Your task to perform on an android device: open app "Google Play services" (install if not already installed) Image 0: 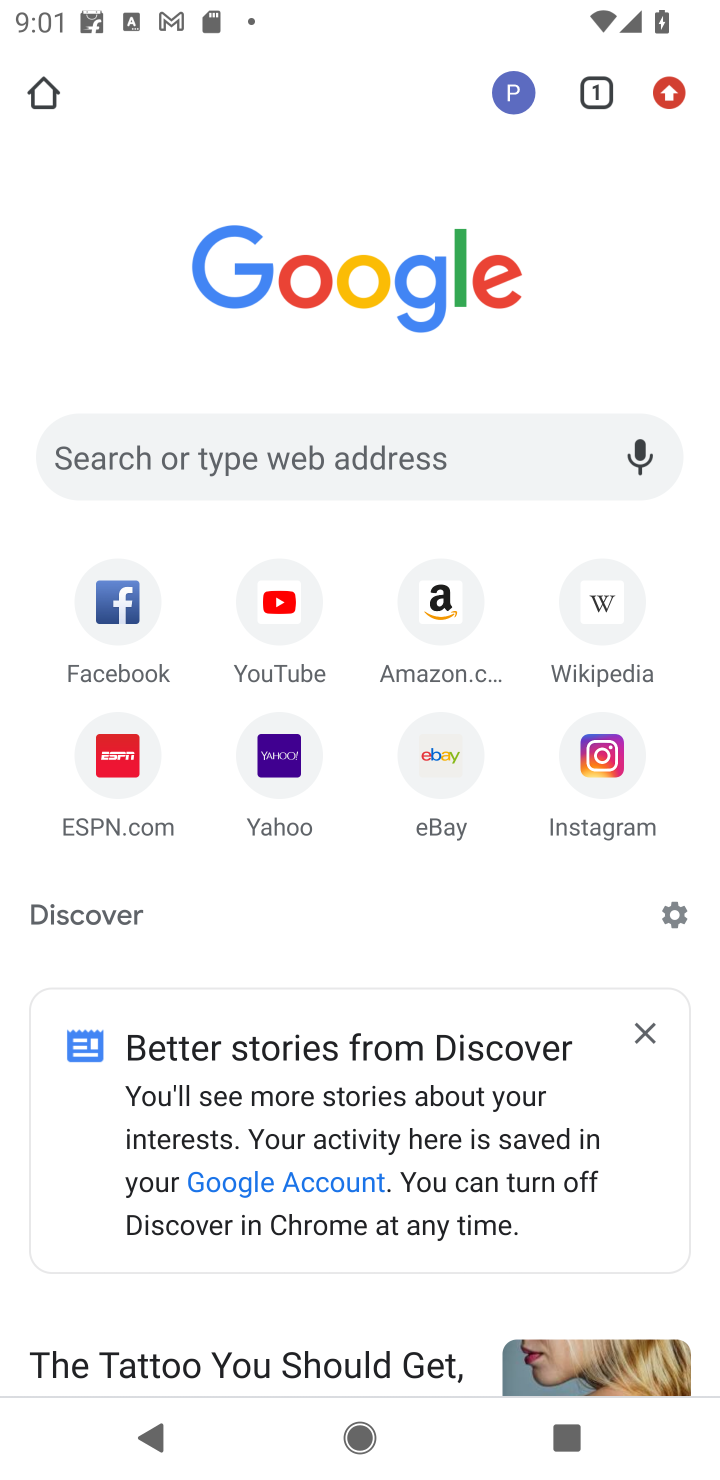
Step 0: press home button
Your task to perform on an android device: open app "Google Play services" (install if not already installed) Image 1: 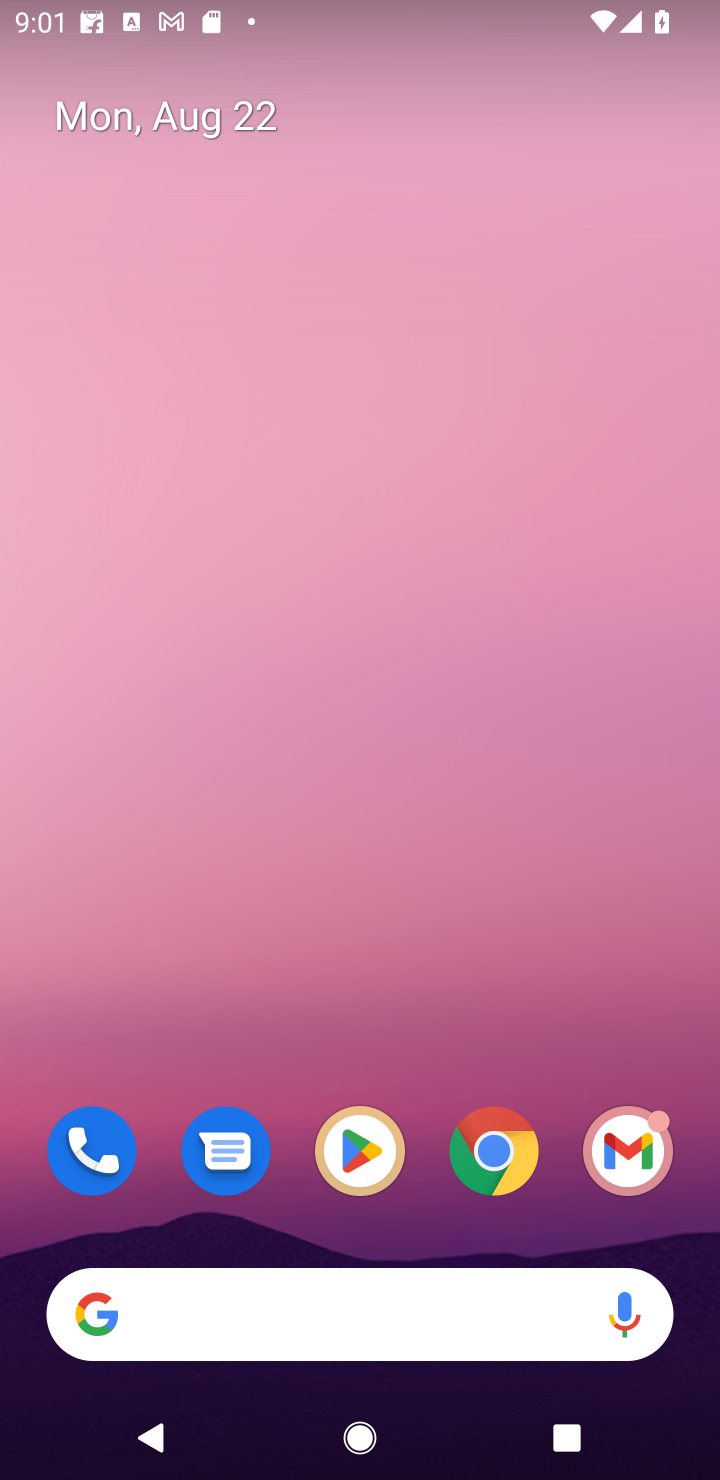
Step 1: click (354, 1153)
Your task to perform on an android device: open app "Google Play services" (install if not already installed) Image 2: 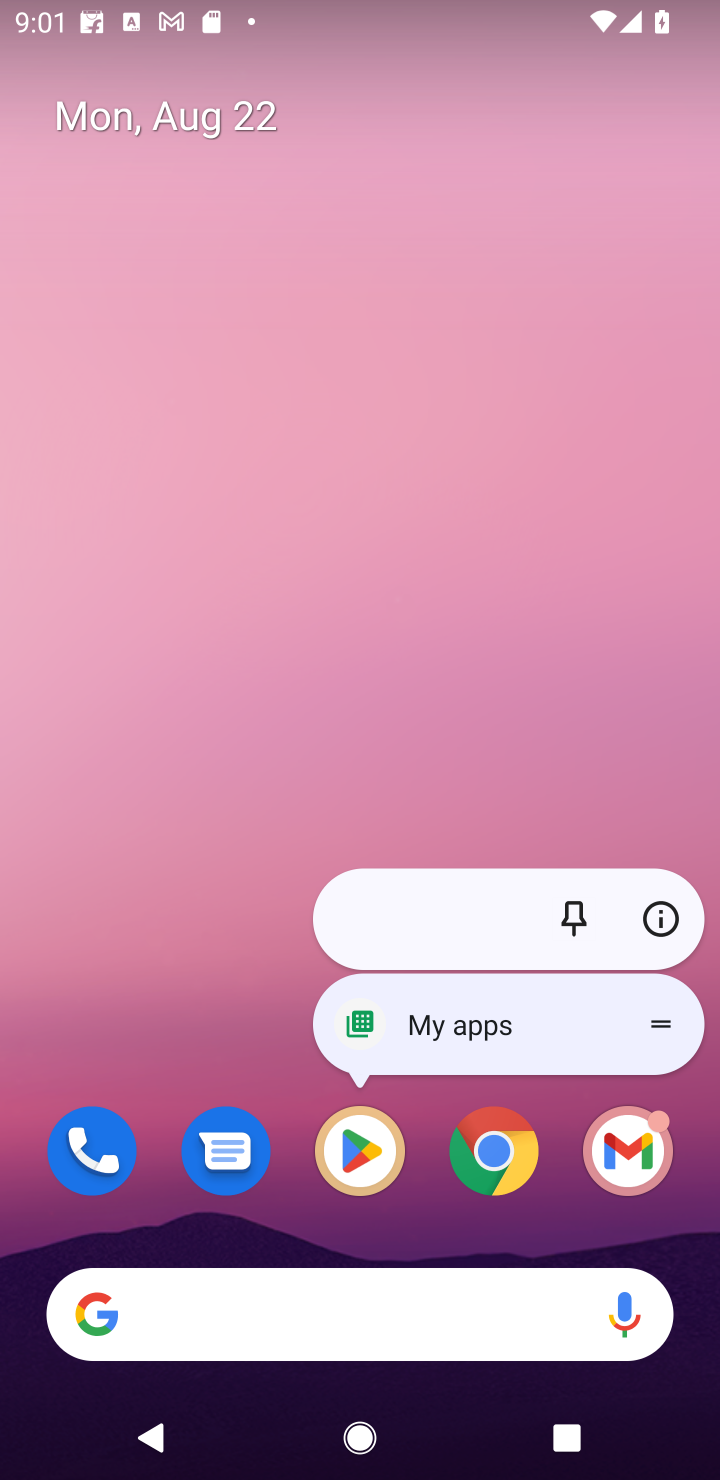
Step 2: click (354, 1158)
Your task to perform on an android device: open app "Google Play services" (install if not already installed) Image 3: 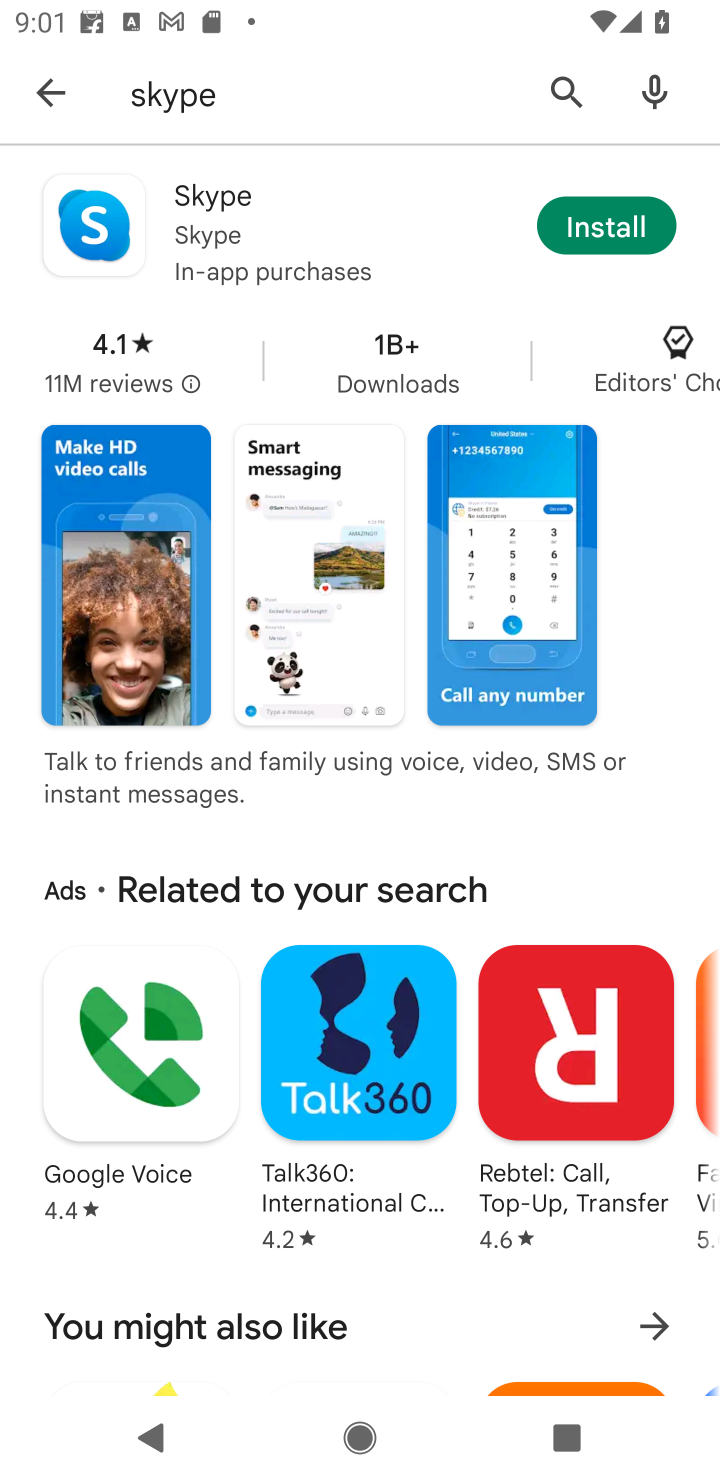
Step 3: click (556, 78)
Your task to perform on an android device: open app "Google Play services" (install if not already installed) Image 4: 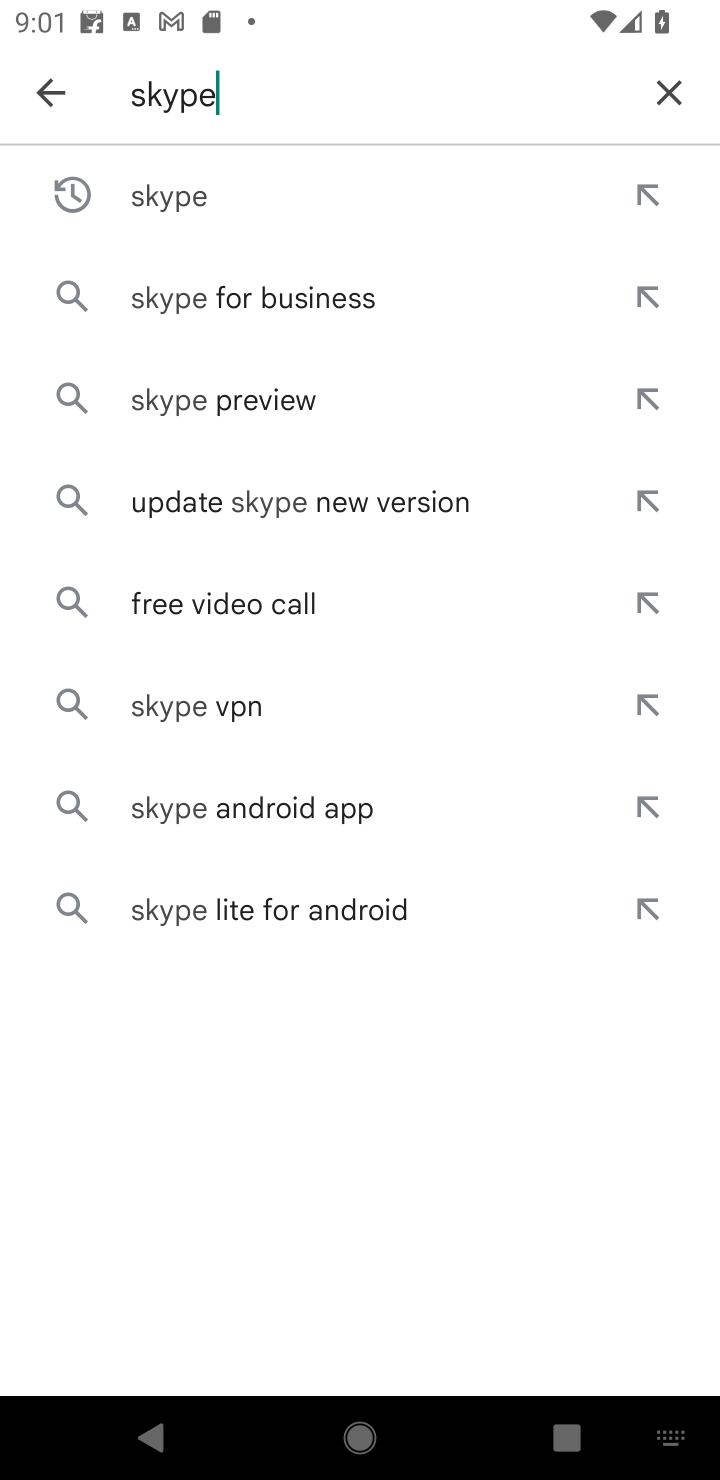
Step 4: click (668, 106)
Your task to perform on an android device: open app "Google Play services" (install if not already installed) Image 5: 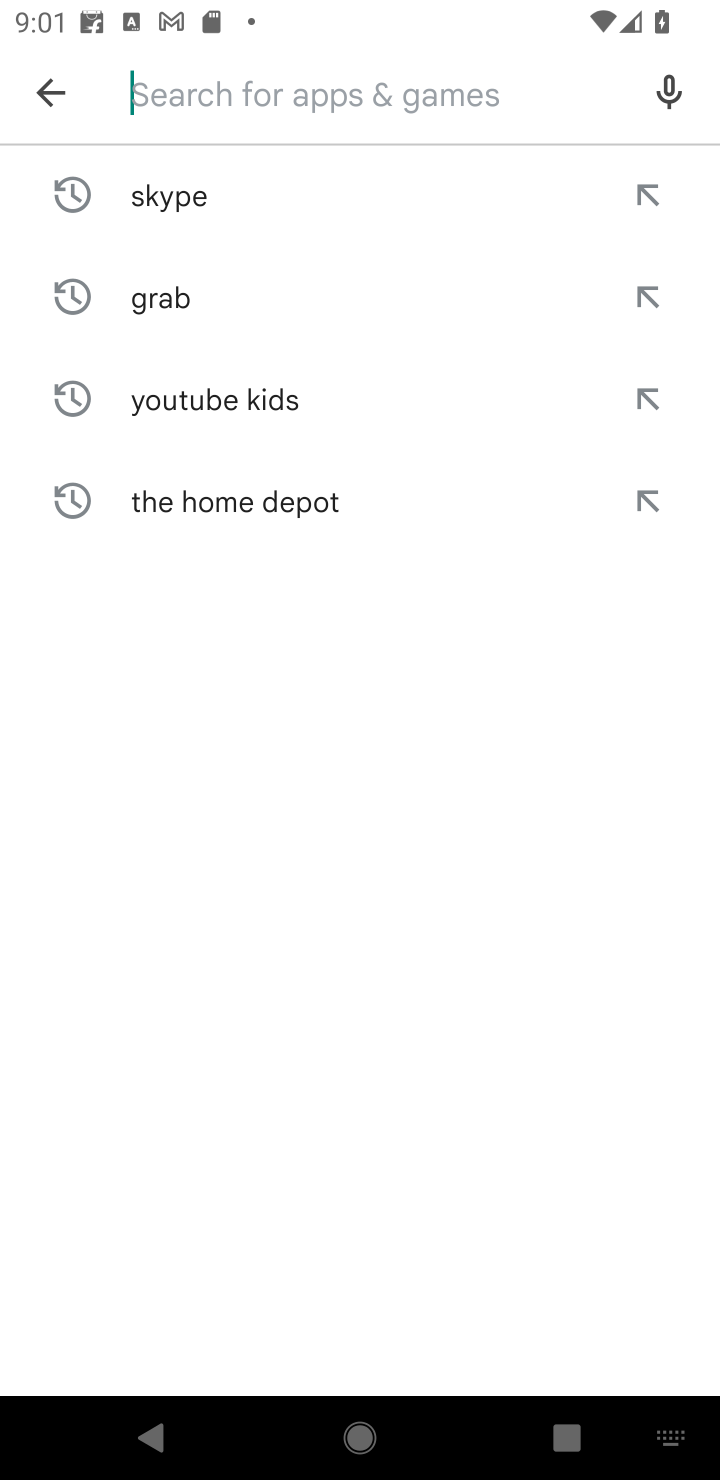
Step 5: type "Google Play services"
Your task to perform on an android device: open app "Google Play services" (install if not already installed) Image 6: 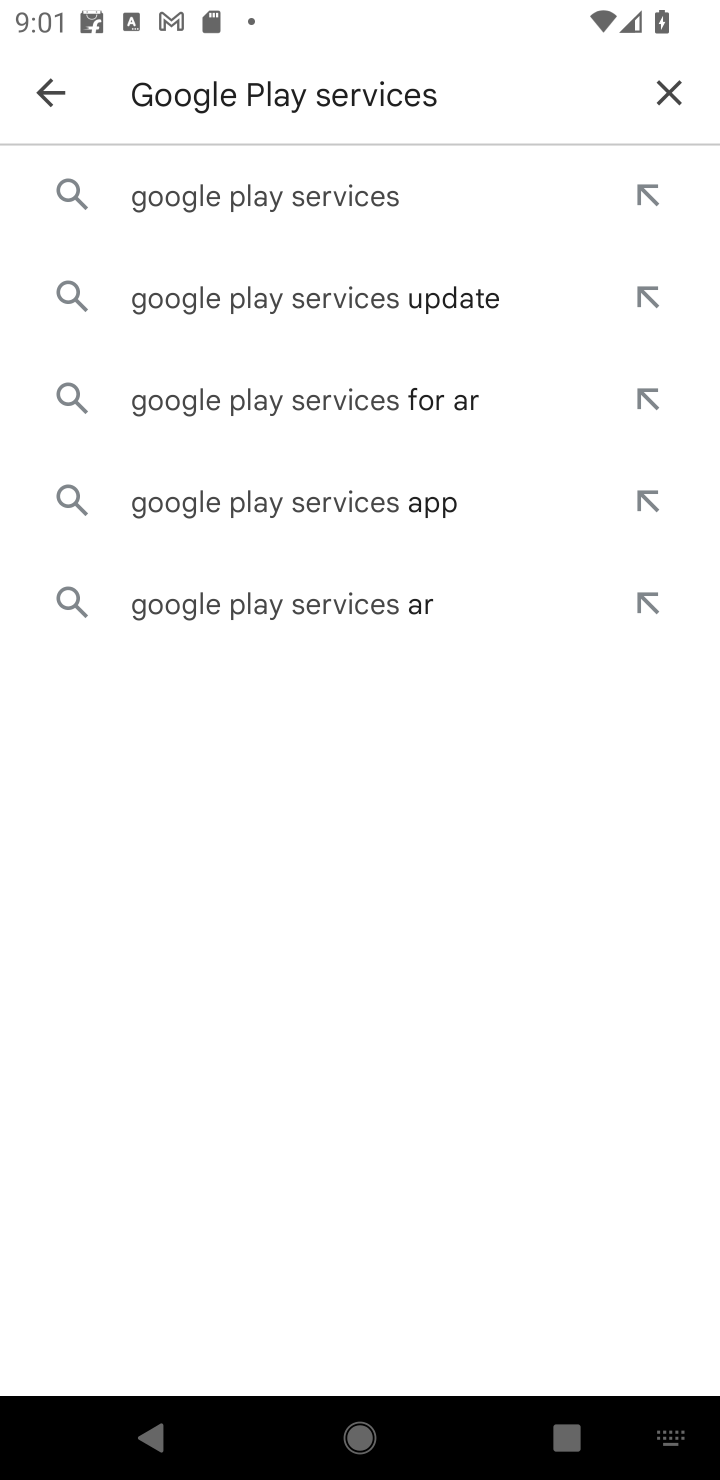
Step 6: click (345, 181)
Your task to perform on an android device: open app "Google Play services" (install if not already installed) Image 7: 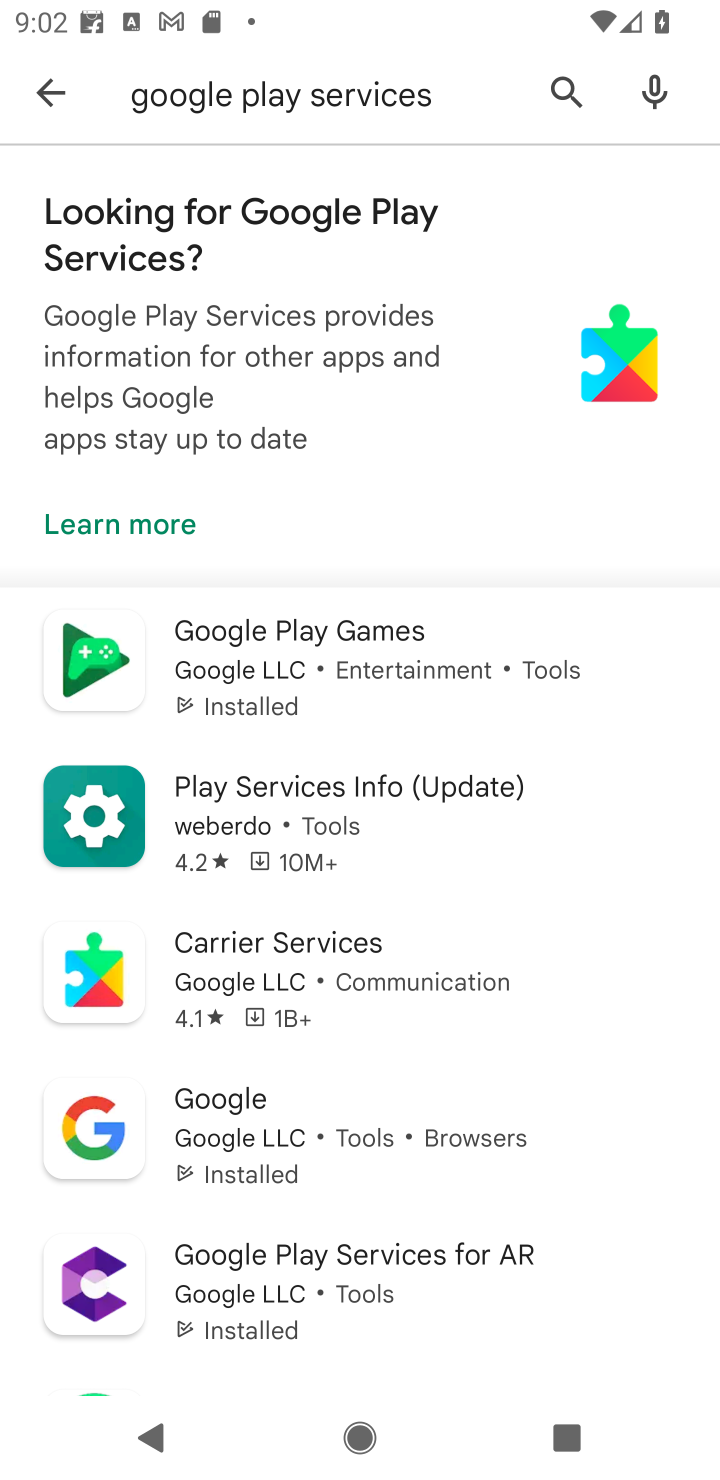
Step 7: task complete